Your task to perform on an android device: turn off javascript in the chrome app Image 0: 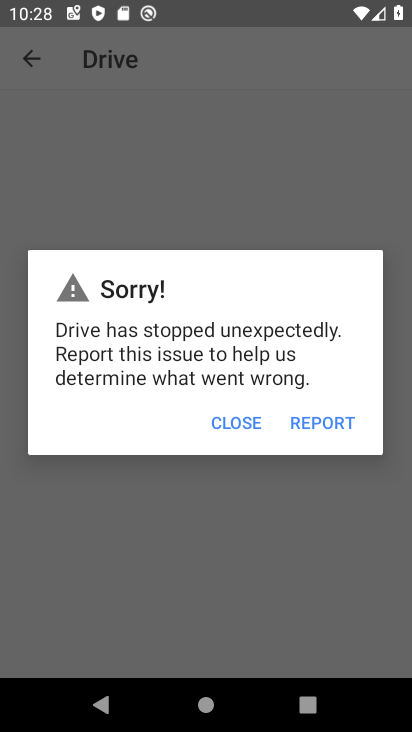
Step 0: press home button
Your task to perform on an android device: turn off javascript in the chrome app Image 1: 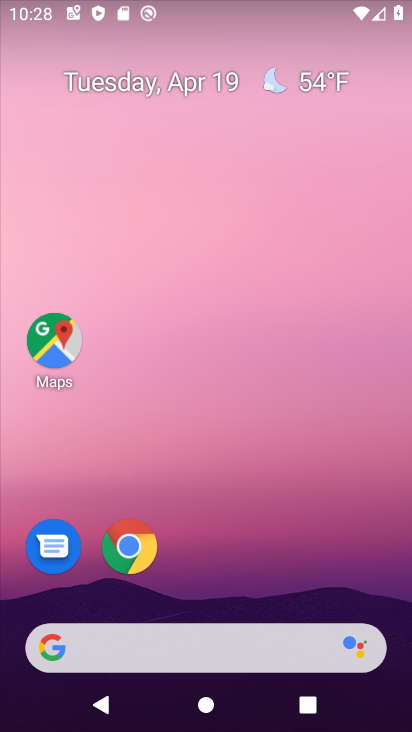
Step 1: click (135, 536)
Your task to perform on an android device: turn off javascript in the chrome app Image 2: 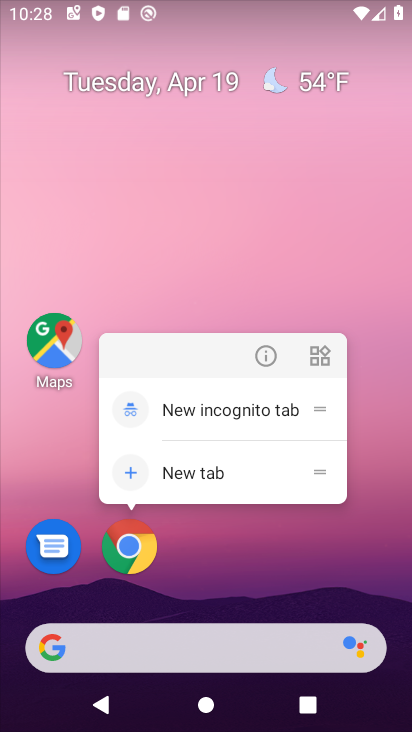
Step 2: click (135, 536)
Your task to perform on an android device: turn off javascript in the chrome app Image 3: 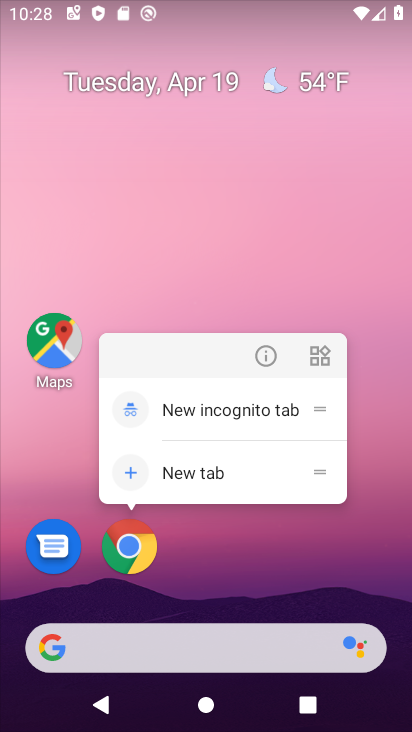
Step 3: click (135, 536)
Your task to perform on an android device: turn off javascript in the chrome app Image 4: 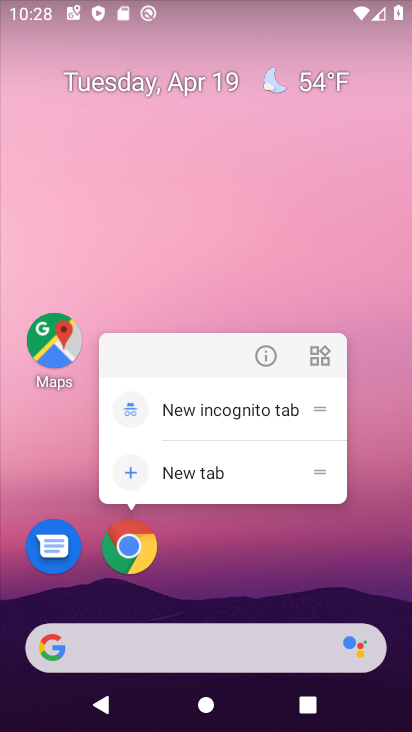
Step 4: click (135, 536)
Your task to perform on an android device: turn off javascript in the chrome app Image 5: 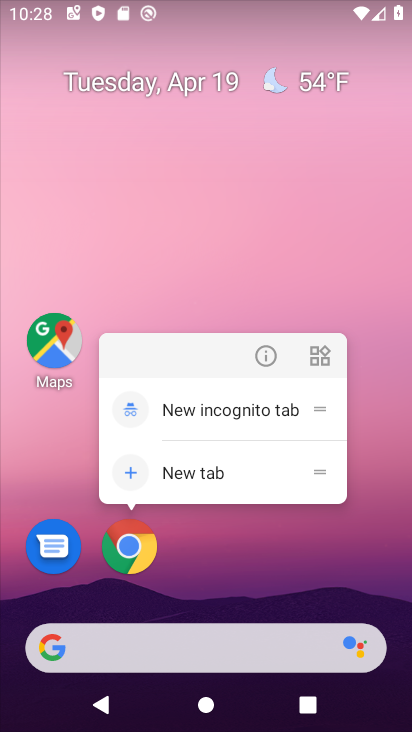
Step 5: click (136, 536)
Your task to perform on an android device: turn off javascript in the chrome app Image 6: 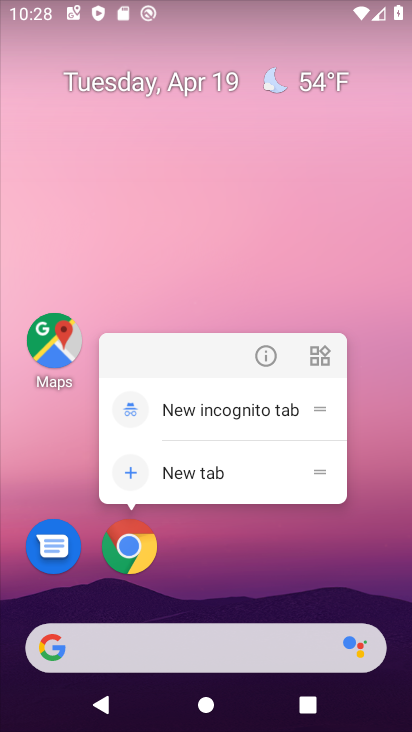
Step 6: click (141, 543)
Your task to perform on an android device: turn off javascript in the chrome app Image 7: 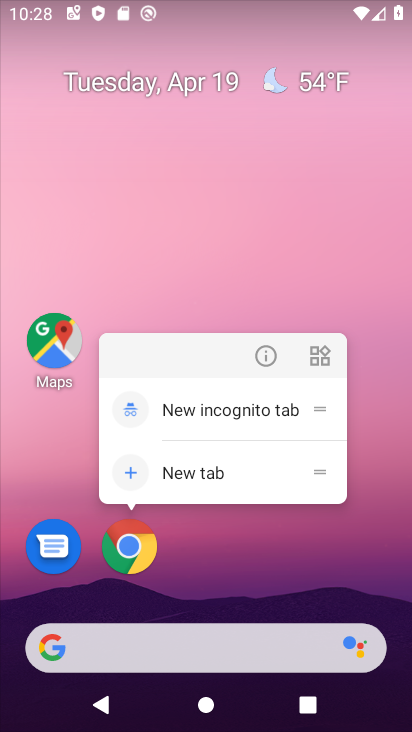
Step 7: click (148, 559)
Your task to perform on an android device: turn off javascript in the chrome app Image 8: 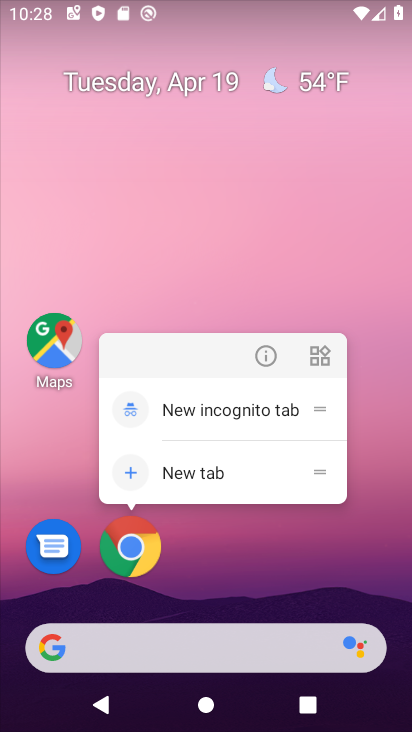
Step 8: click (94, 542)
Your task to perform on an android device: turn off javascript in the chrome app Image 9: 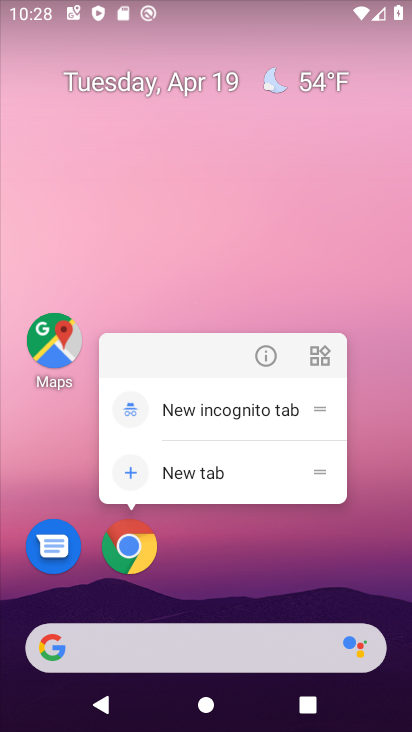
Step 9: click (134, 549)
Your task to perform on an android device: turn off javascript in the chrome app Image 10: 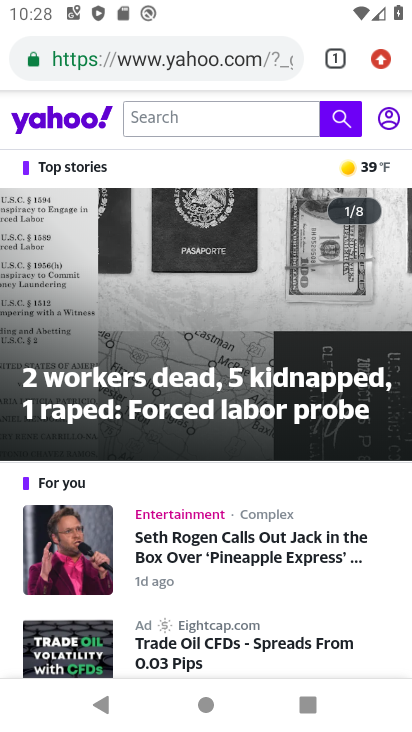
Step 10: click (381, 50)
Your task to perform on an android device: turn off javascript in the chrome app Image 11: 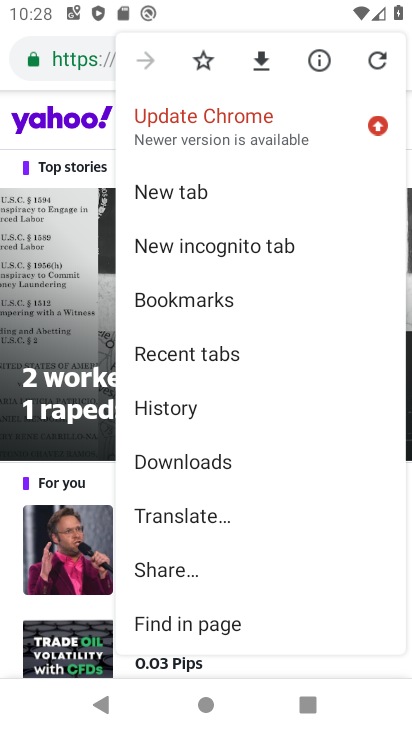
Step 11: drag from (293, 551) to (313, 58)
Your task to perform on an android device: turn off javascript in the chrome app Image 12: 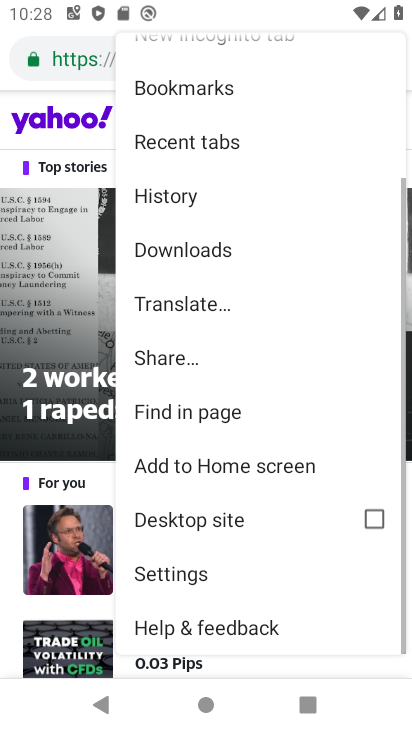
Step 12: click (198, 571)
Your task to perform on an android device: turn off javascript in the chrome app Image 13: 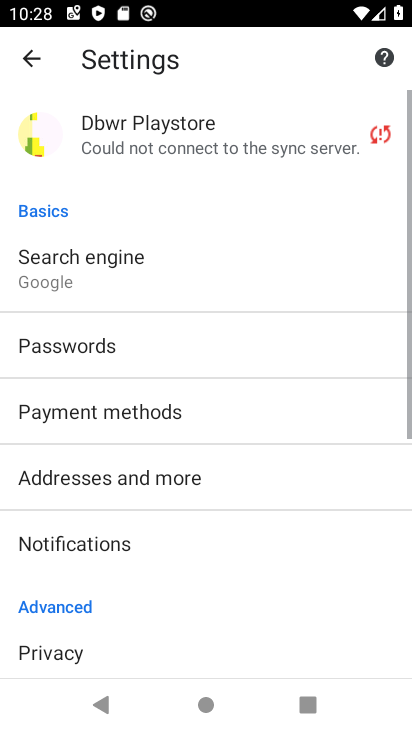
Step 13: drag from (244, 618) to (251, 72)
Your task to perform on an android device: turn off javascript in the chrome app Image 14: 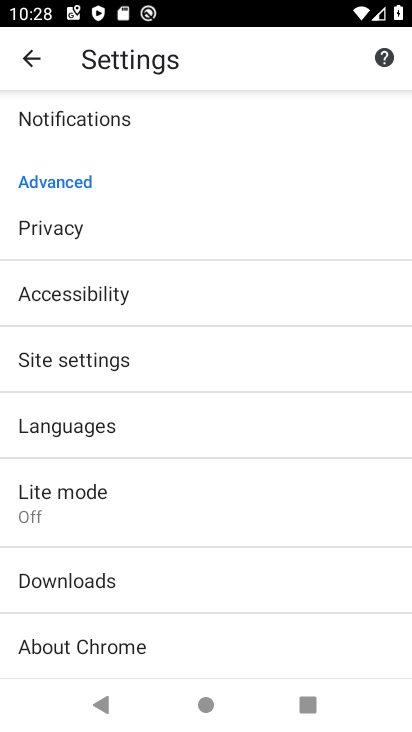
Step 14: click (191, 367)
Your task to perform on an android device: turn off javascript in the chrome app Image 15: 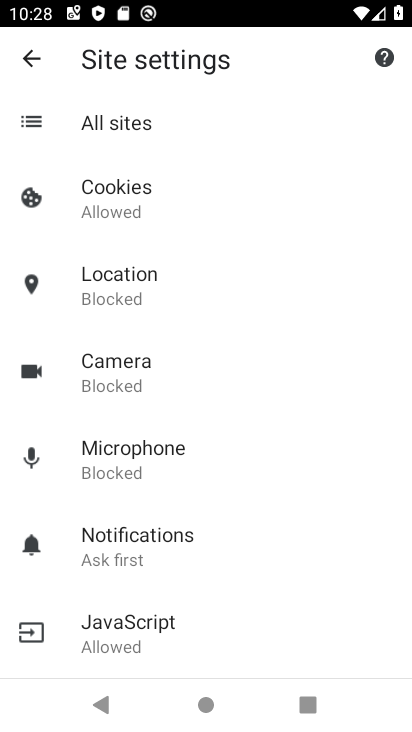
Step 15: drag from (266, 608) to (310, 83)
Your task to perform on an android device: turn off javascript in the chrome app Image 16: 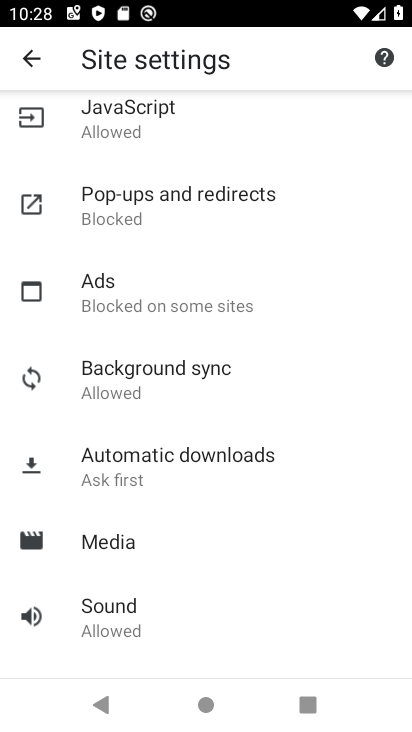
Step 16: click (195, 122)
Your task to perform on an android device: turn off javascript in the chrome app Image 17: 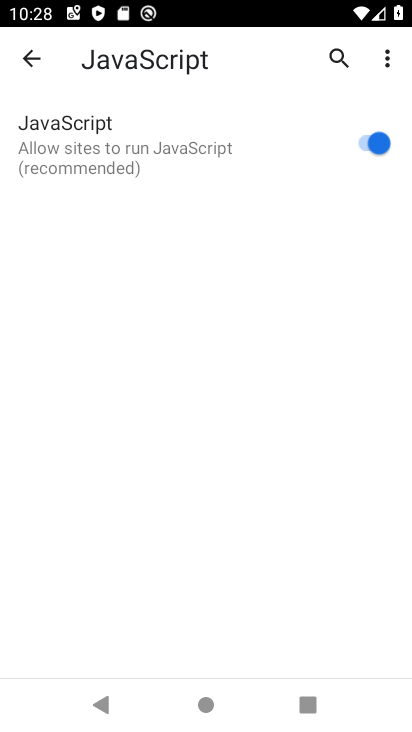
Step 17: click (382, 139)
Your task to perform on an android device: turn off javascript in the chrome app Image 18: 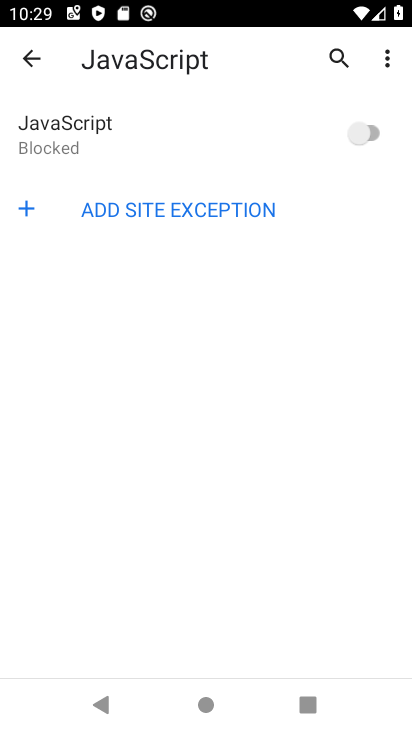
Step 18: task complete